Your task to perform on an android device: What's the weather today? Image 0: 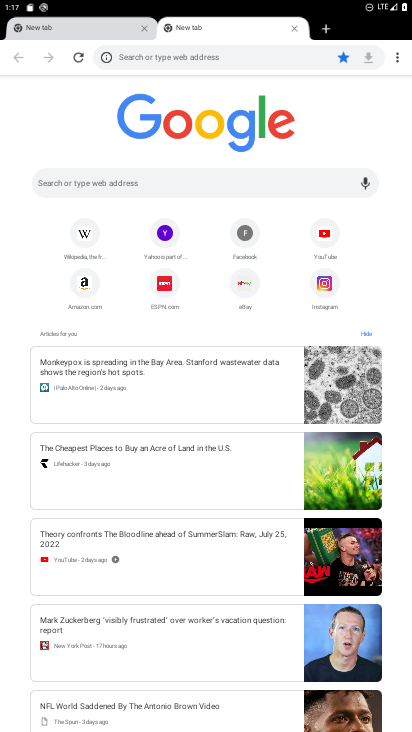
Step 0: click (157, 176)
Your task to perform on an android device: What's the weather today? Image 1: 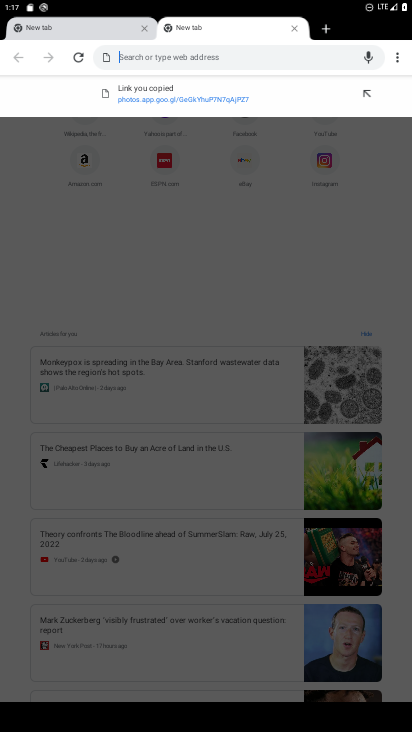
Step 1: type "what is the weather today"
Your task to perform on an android device: What's the weather today? Image 2: 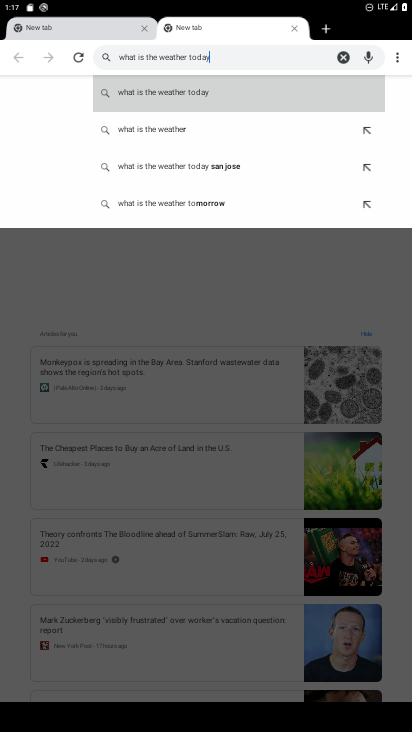
Step 2: type ""
Your task to perform on an android device: What's the weather today? Image 3: 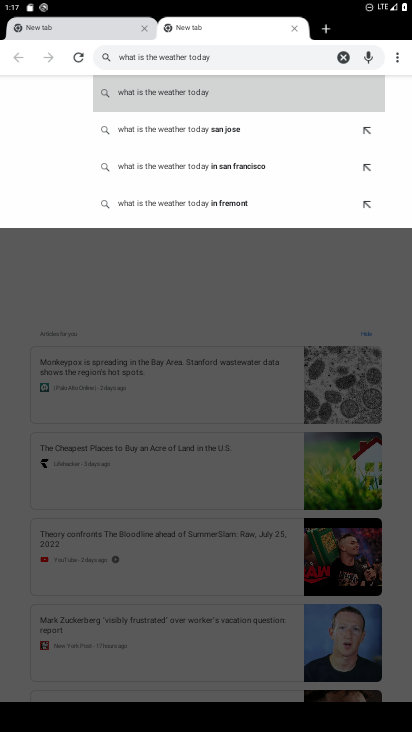
Step 3: click (216, 104)
Your task to perform on an android device: What's the weather today? Image 4: 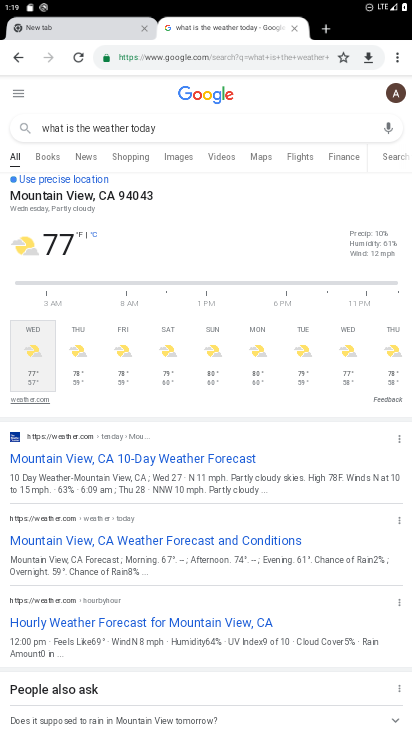
Step 4: task complete